Your task to perform on an android device: turn on wifi Image 0: 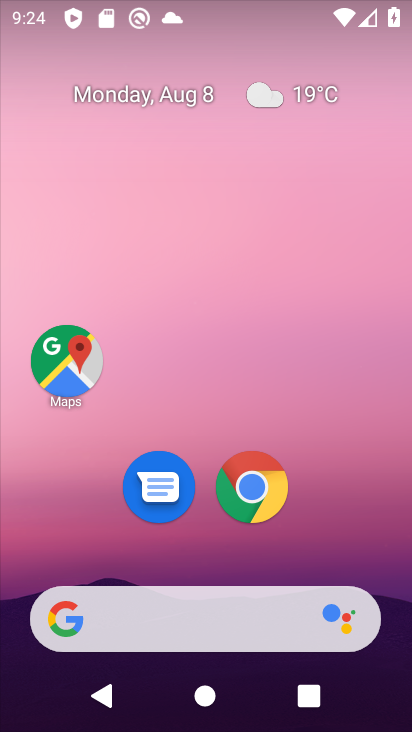
Step 0: drag from (216, 536) to (223, 10)
Your task to perform on an android device: turn on wifi Image 1: 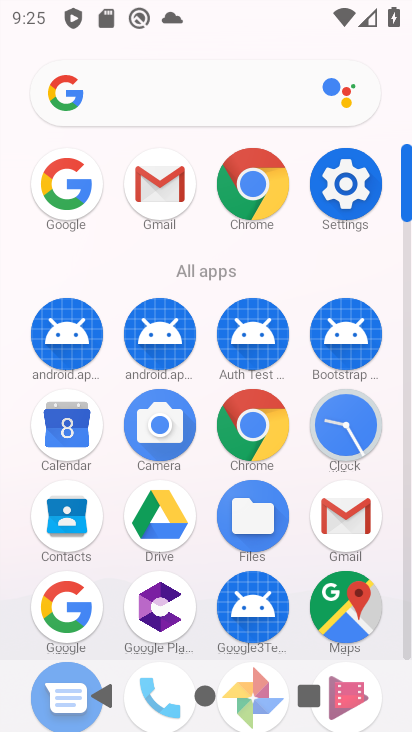
Step 1: click (346, 192)
Your task to perform on an android device: turn on wifi Image 2: 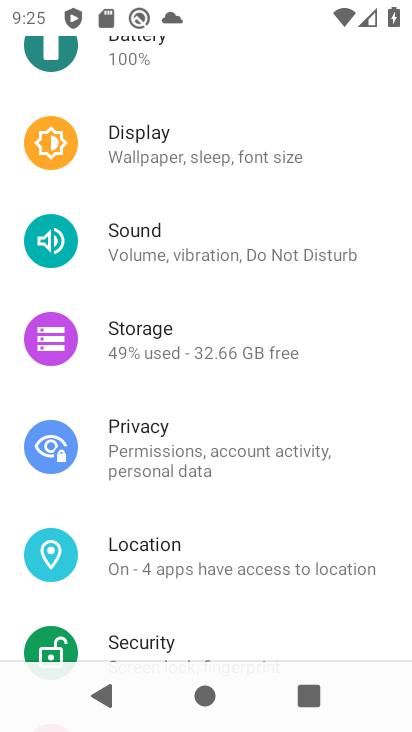
Step 2: drag from (201, 222) to (140, 641)
Your task to perform on an android device: turn on wifi Image 3: 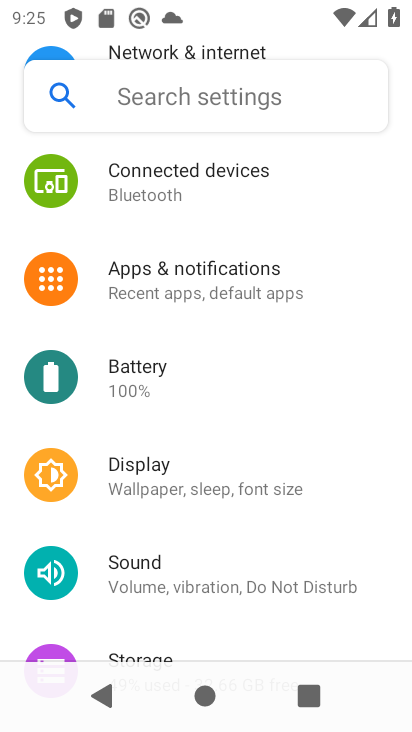
Step 3: drag from (185, 173) to (181, 601)
Your task to perform on an android device: turn on wifi Image 4: 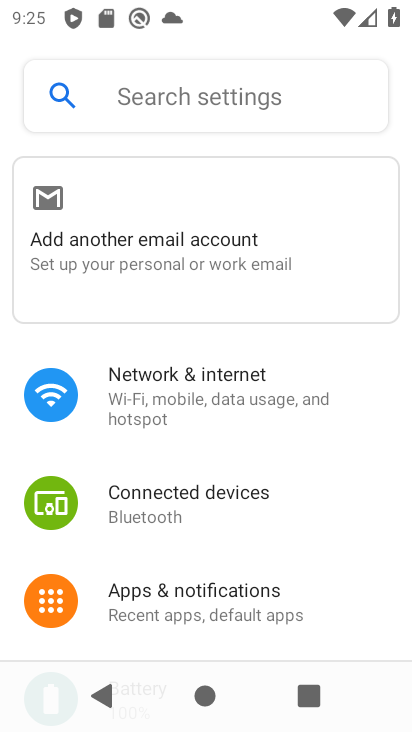
Step 4: click (159, 383)
Your task to perform on an android device: turn on wifi Image 5: 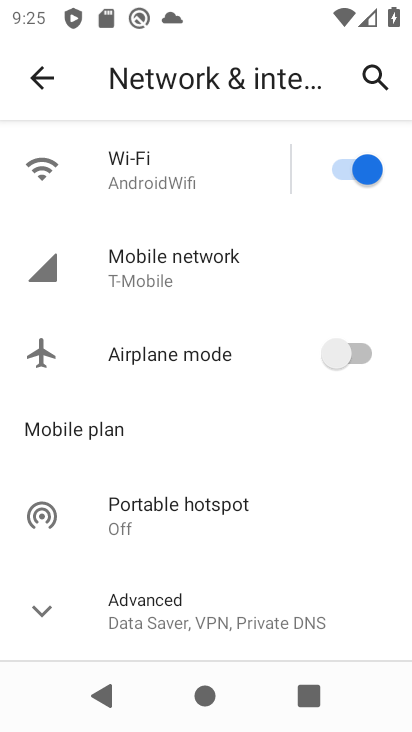
Step 5: task complete